Your task to perform on an android device: change the clock style Image 0: 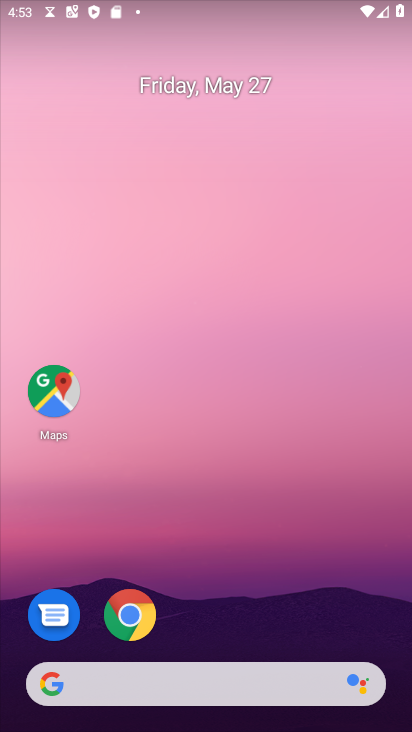
Step 0: drag from (251, 553) to (141, 3)
Your task to perform on an android device: change the clock style Image 1: 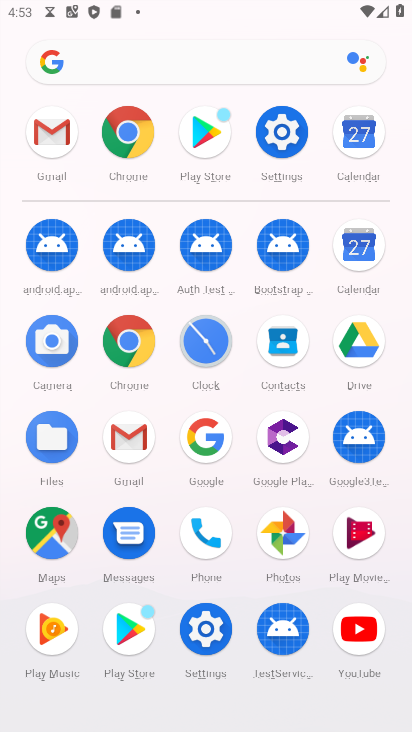
Step 1: click (215, 343)
Your task to perform on an android device: change the clock style Image 2: 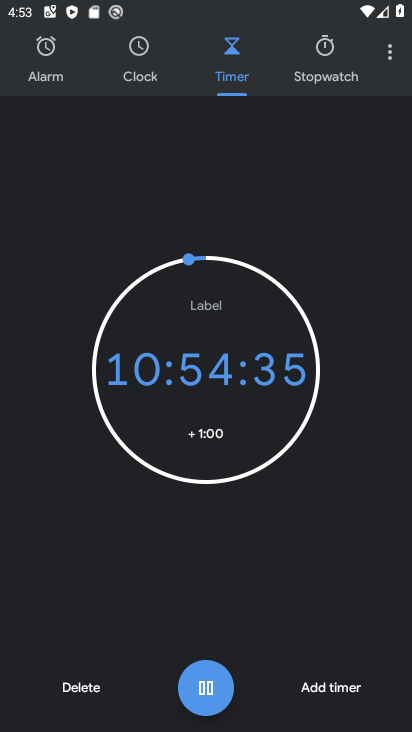
Step 2: click (384, 57)
Your task to perform on an android device: change the clock style Image 3: 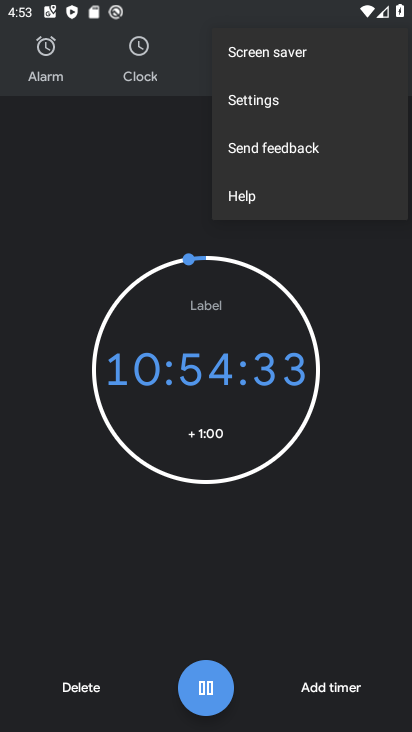
Step 3: click (308, 97)
Your task to perform on an android device: change the clock style Image 4: 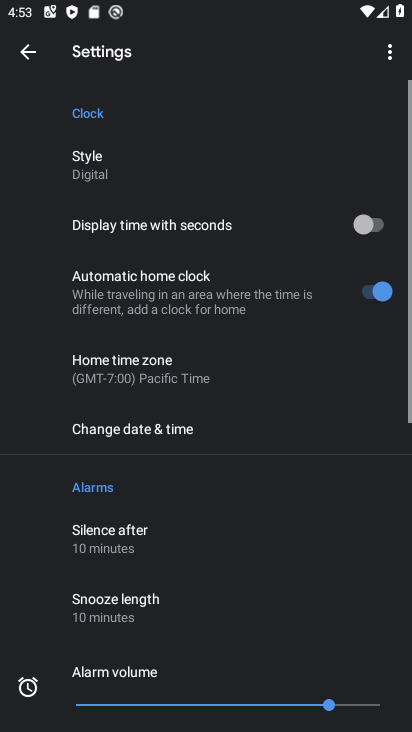
Step 4: click (114, 170)
Your task to perform on an android device: change the clock style Image 5: 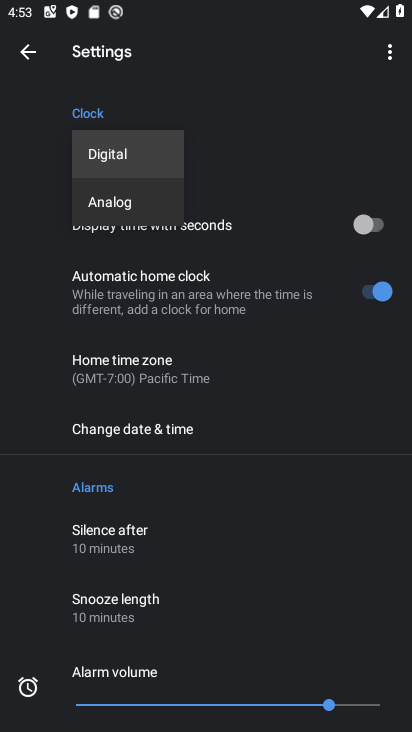
Step 5: click (138, 190)
Your task to perform on an android device: change the clock style Image 6: 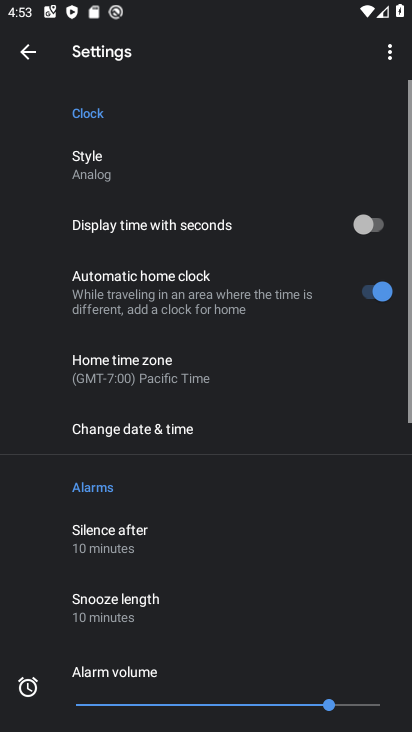
Step 6: task complete